Your task to perform on an android device: Search for top rated burger restaurants on Maps Image 0: 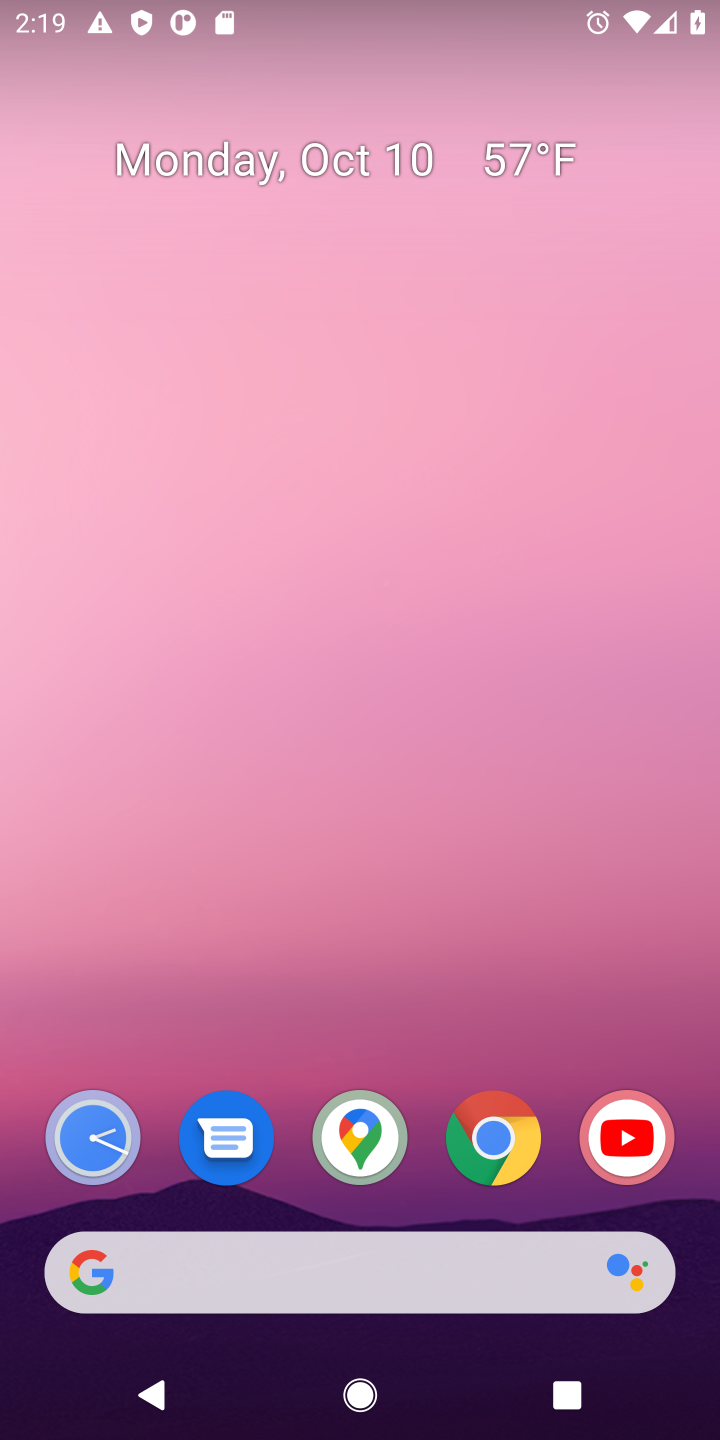
Step 0: click (366, 1123)
Your task to perform on an android device: Search for top rated burger restaurants on Maps Image 1: 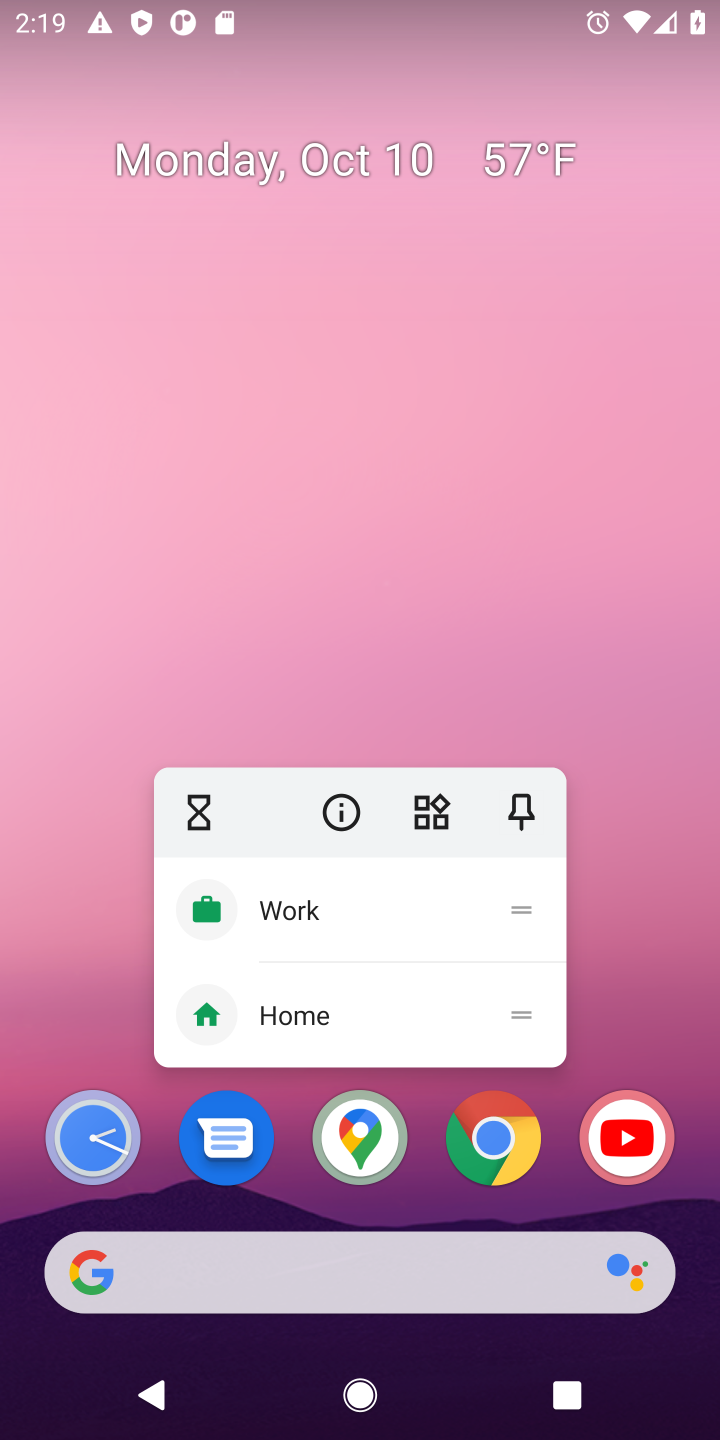
Step 1: click (372, 1130)
Your task to perform on an android device: Search for top rated burger restaurants on Maps Image 2: 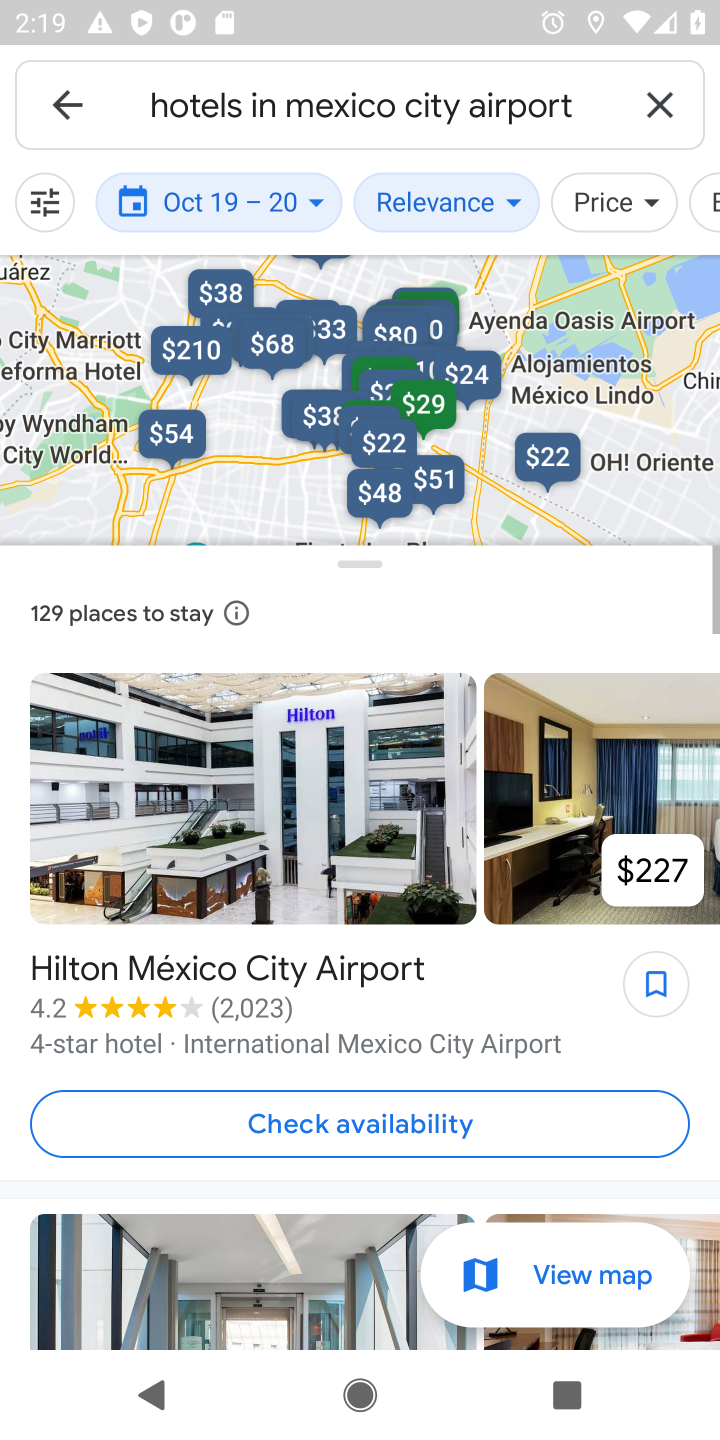
Step 2: click (663, 103)
Your task to perform on an android device: Search for top rated burger restaurants on Maps Image 3: 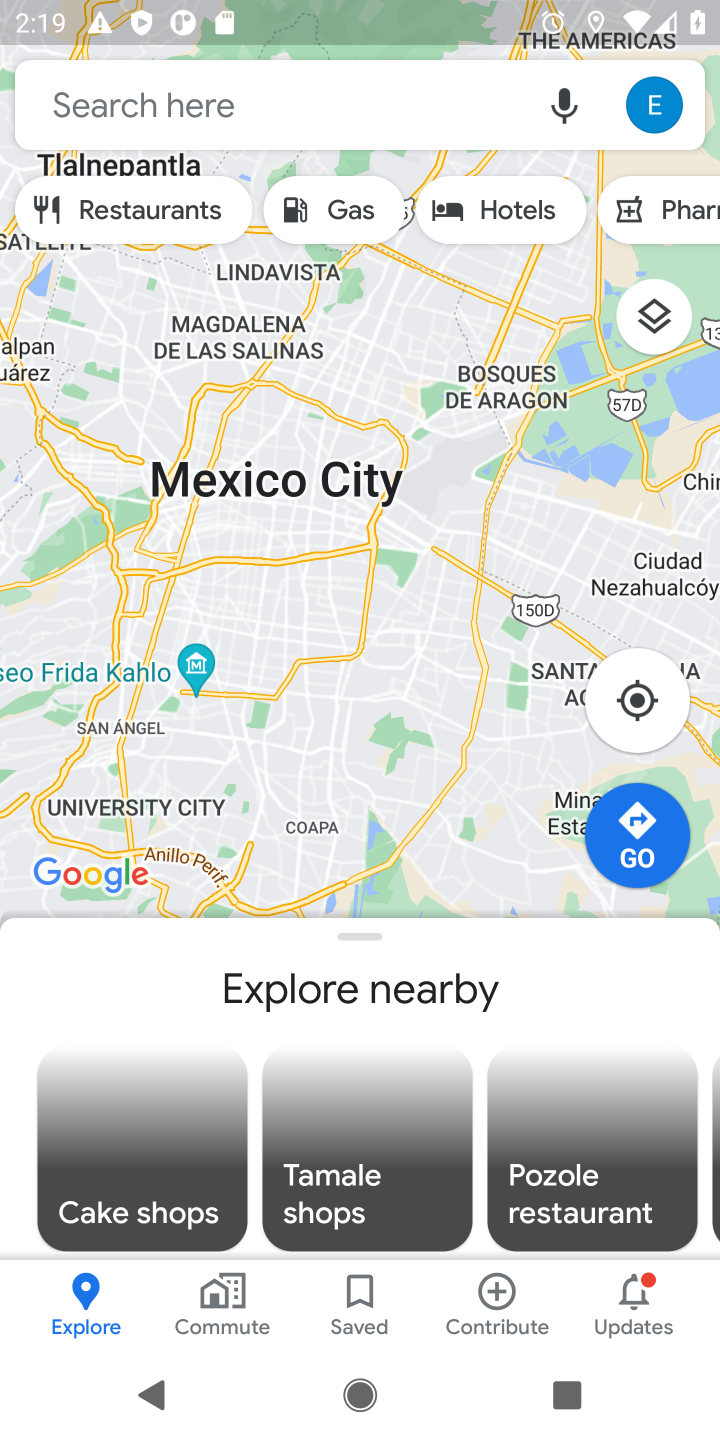
Step 3: click (302, 100)
Your task to perform on an android device: Search for top rated burger restaurants on Maps Image 4: 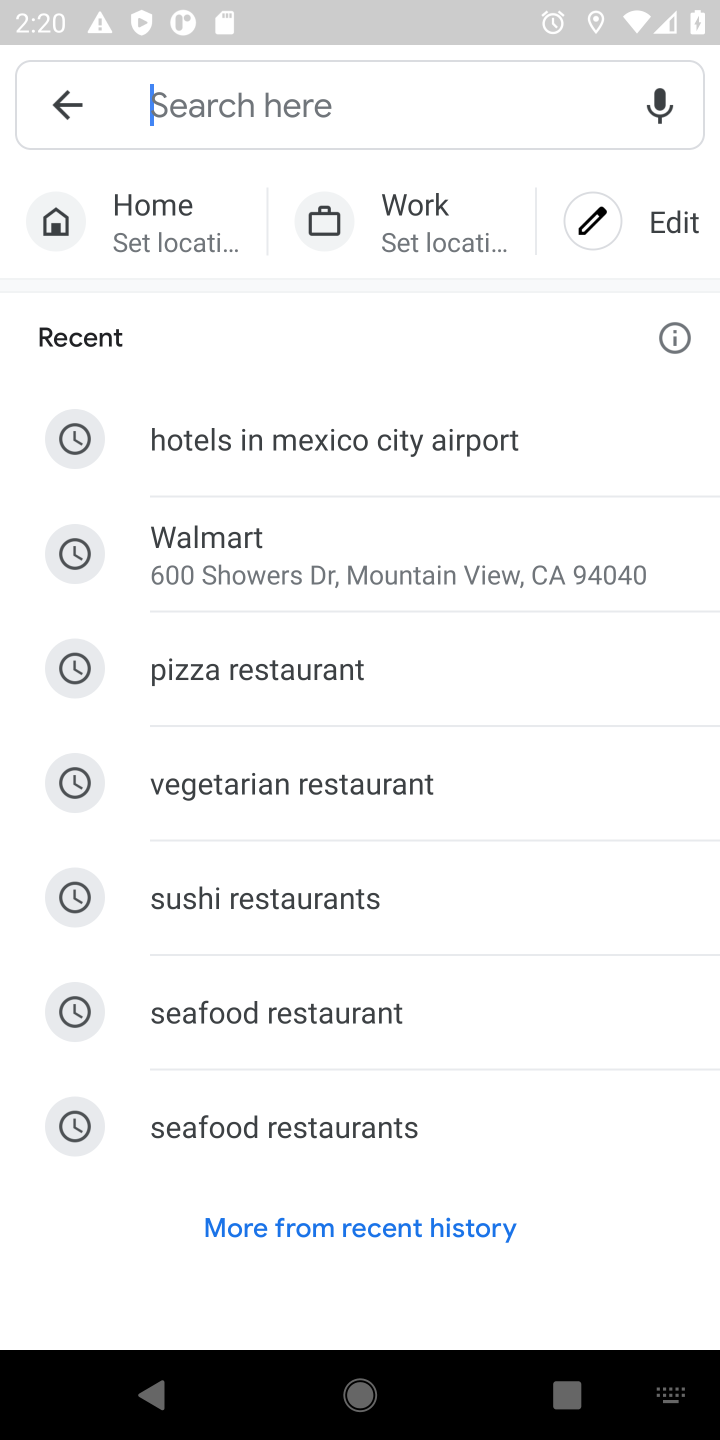
Step 4: type "top rated burger restaurants"
Your task to perform on an android device: Search for top rated burger restaurants on Maps Image 5: 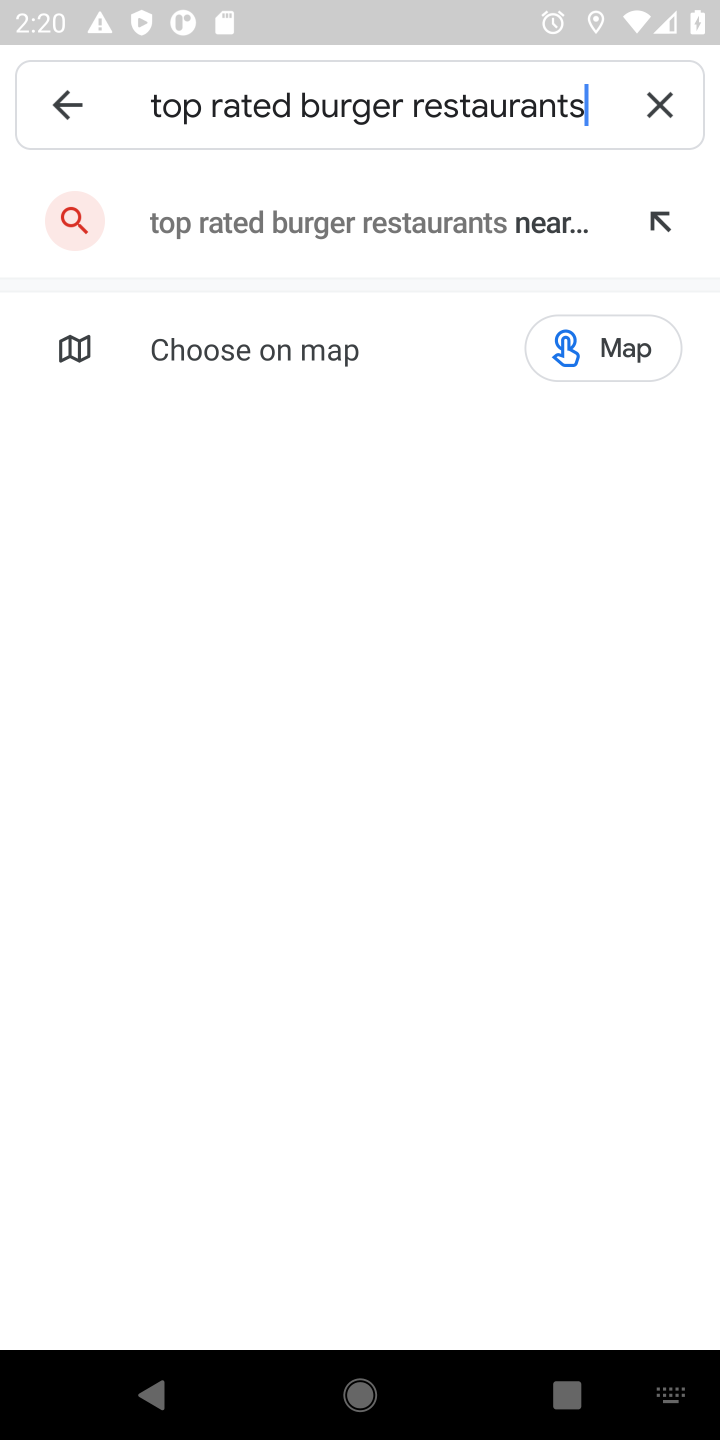
Step 5: click (336, 218)
Your task to perform on an android device: Search for top rated burger restaurants on Maps Image 6: 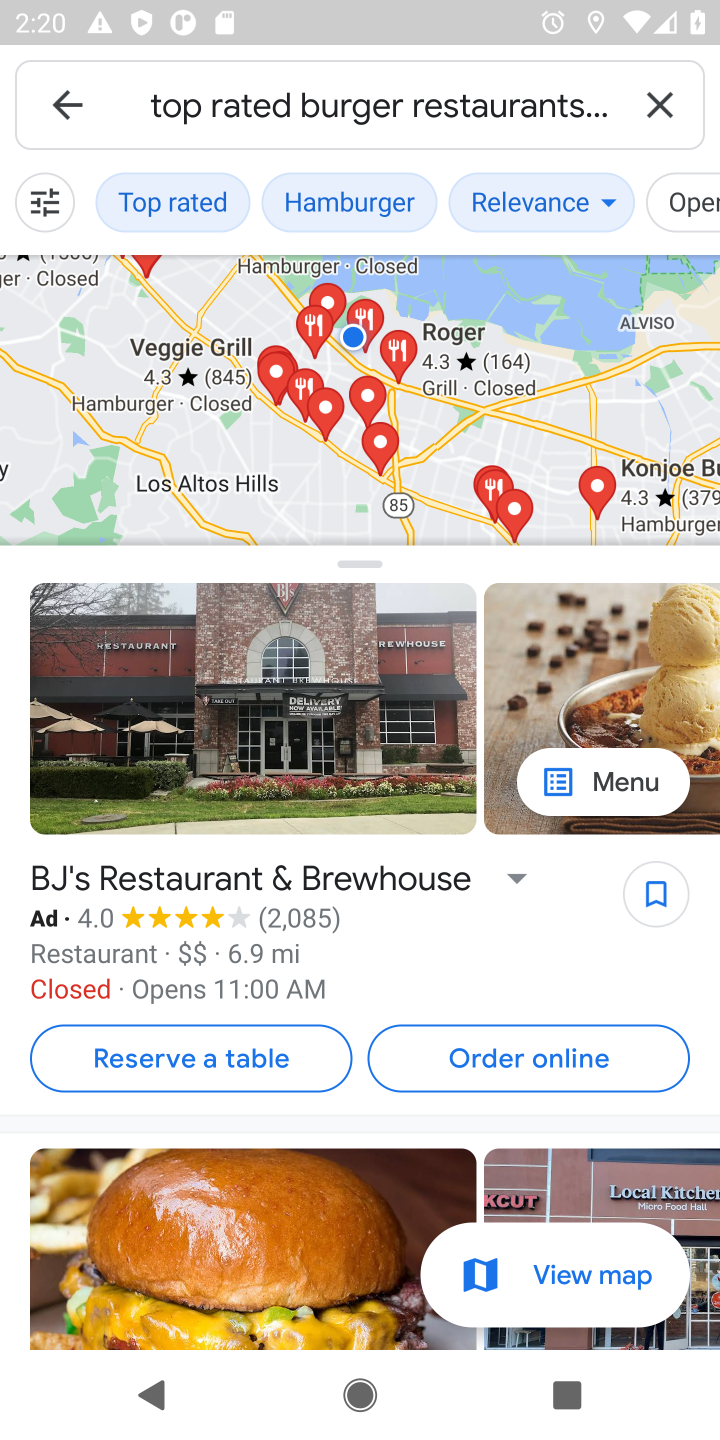
Step 6: task complete